Your task to perform on an android device: check storage Image 0: 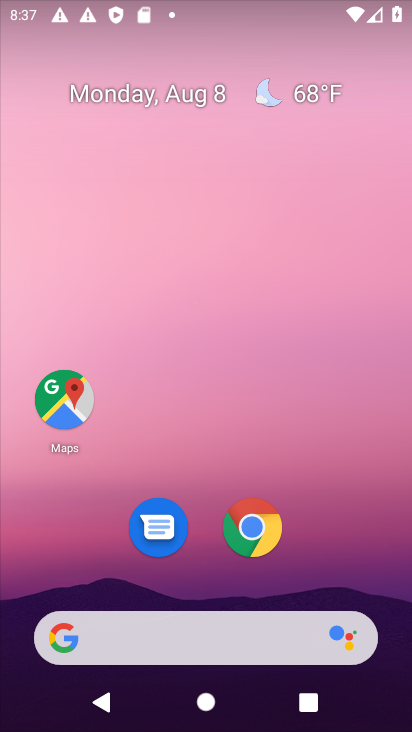
Step 0: drag from (392, 691) to (307, 84)
Your task to perform on an android device: check storage Image 1: 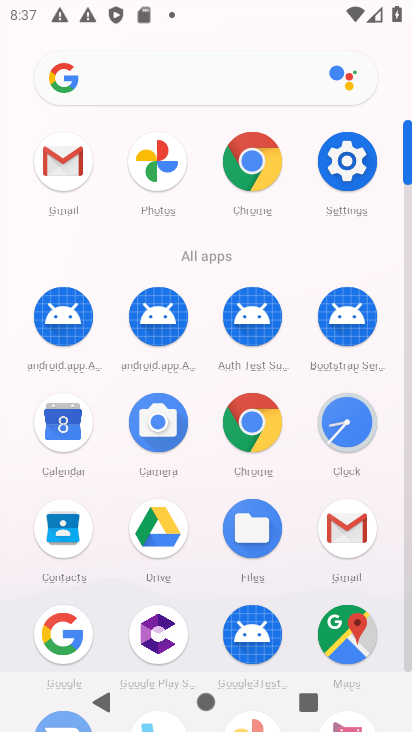
Step 1: click (348, 156)
Your task to perform on an android device: check storage Image 2: 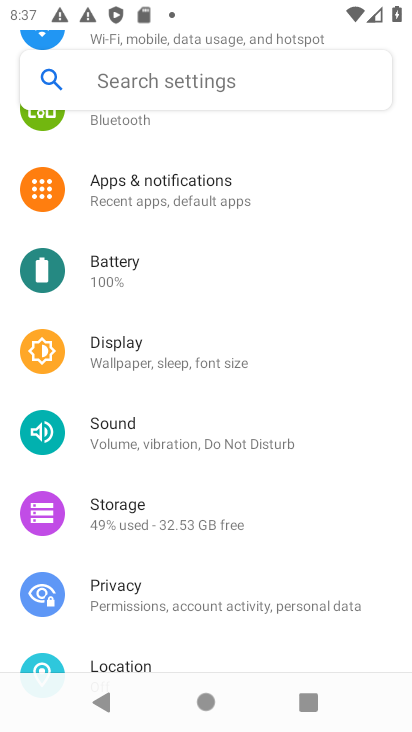
Step 2: click (116, 510)
Your task to perform on an android device: check storage Image 3: 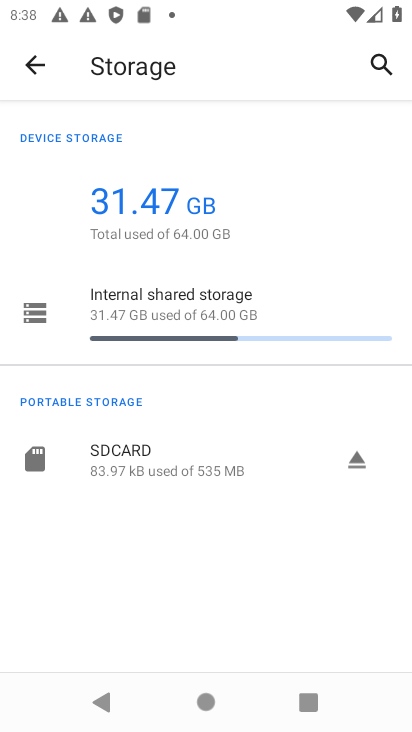
Step 3: task complete